Your task to perform on an android device: Open Google Maps and go to "Timeline" Image 0: 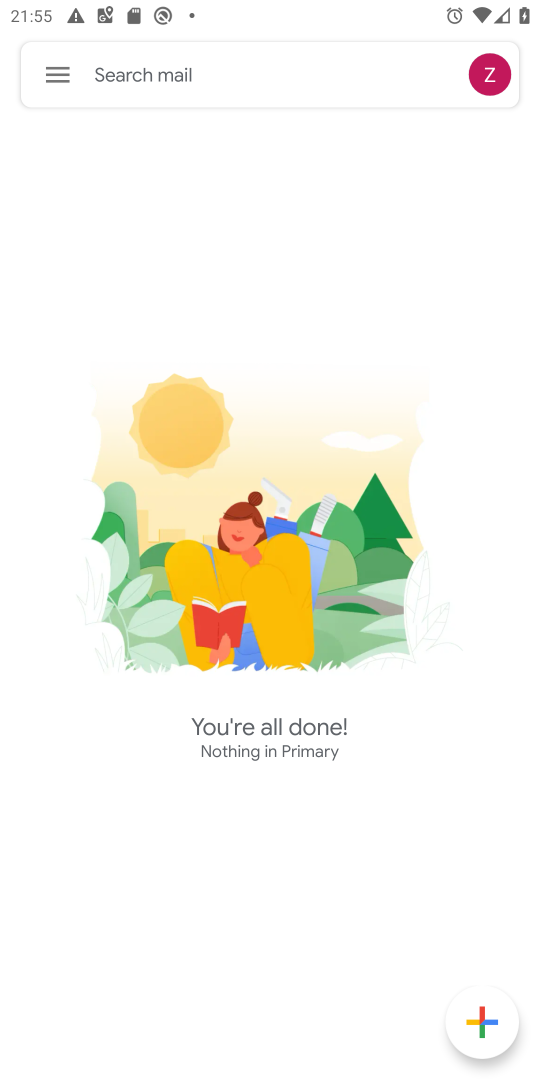
Step 0: press home button
Your task to perform on an android device: Open Google Maps and go to "Timeline" Image 1: 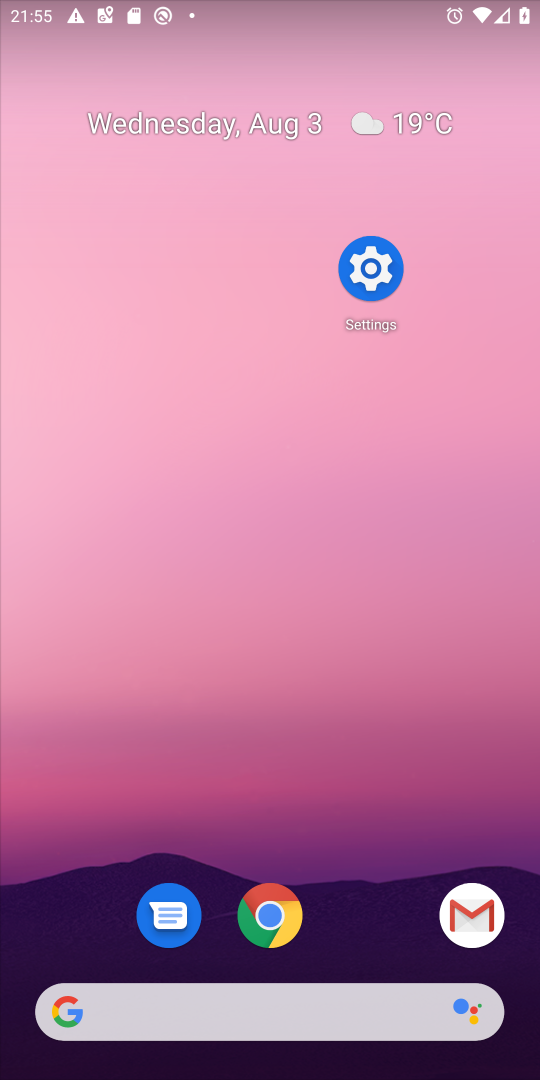
Step 1: drag from (321, 1031) to (132, 358)
Your task to perform on an android device: Open Google Maps and go to "Timeline" Image 2: 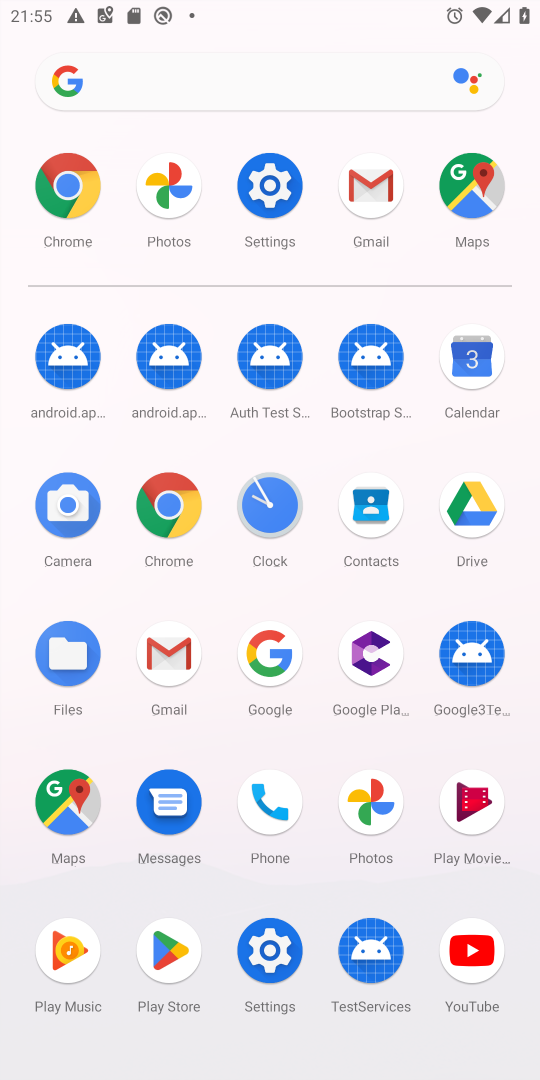
Step 2: click (73, 798)
Your task to perform on an android device: Open Google Maps and go to "Timeline" Image 3: 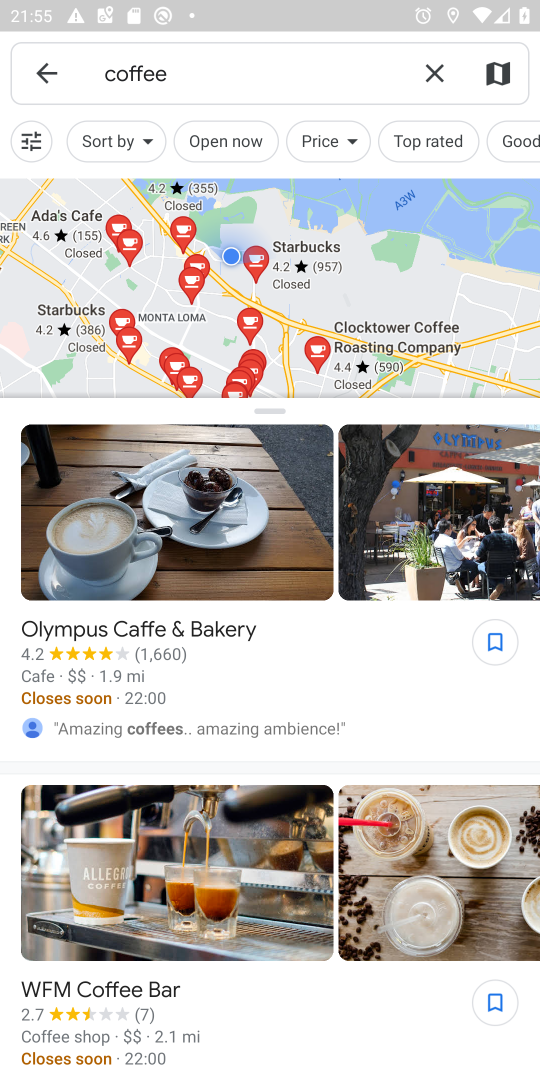
Step 3: click (41, 87)
Your task to perform on an android device: Open Google Maps and go to "Timeline" Image 4: 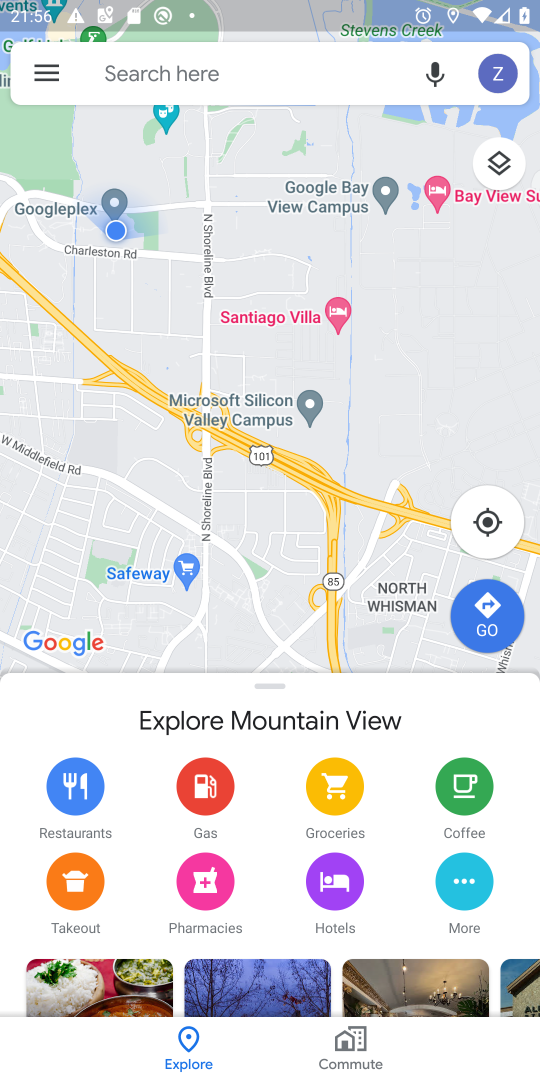
Step 4: click (38, 85)
Your task to perform on an android device: Open Google Maps and go to "Timeline" Image 5: 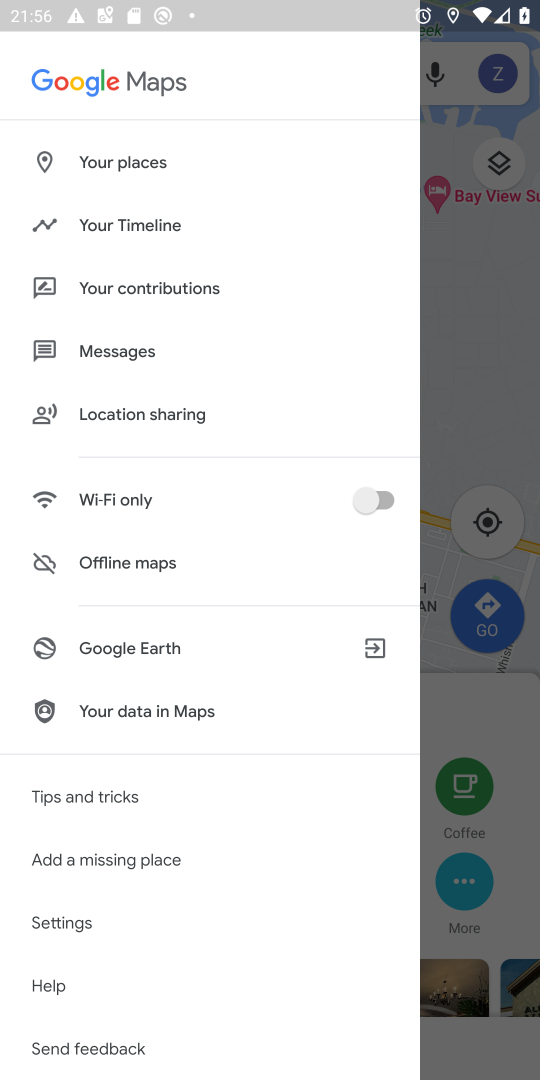
Step 5: click (130, 216)
Your task to perform on an android device: Open Google Maps and go to "Timeline" Image 6: 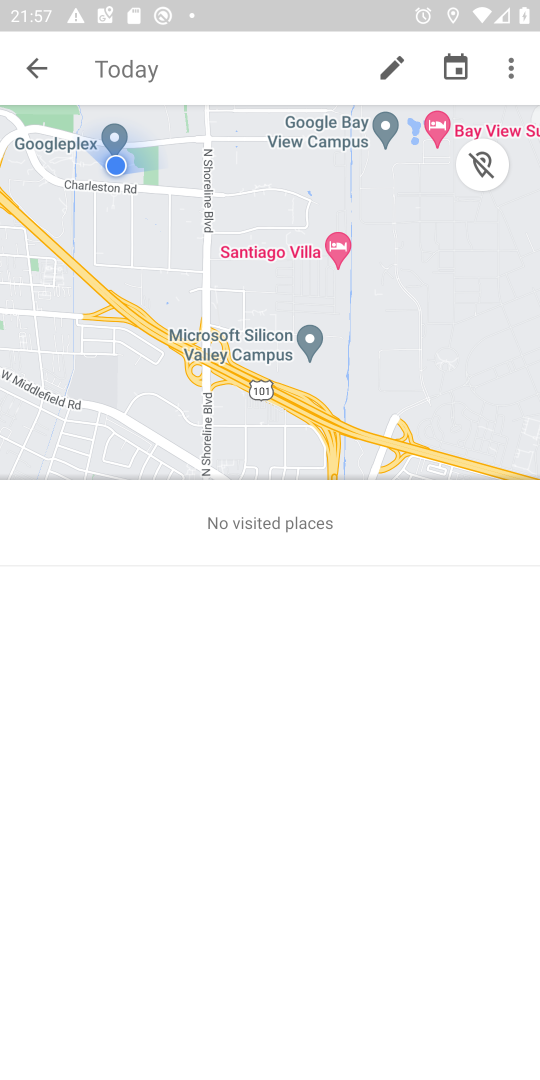
Step 6: task complete